Your task to perform on an android device: allow notifications from all sites in the chrome app Image 0: 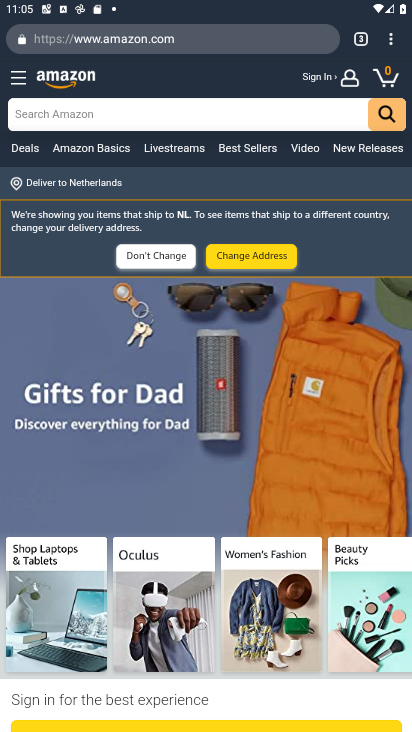
Step 0: click (394, 35)
Your task to perform on an android device: allow notifications from all sites in the chrome app Image 1: 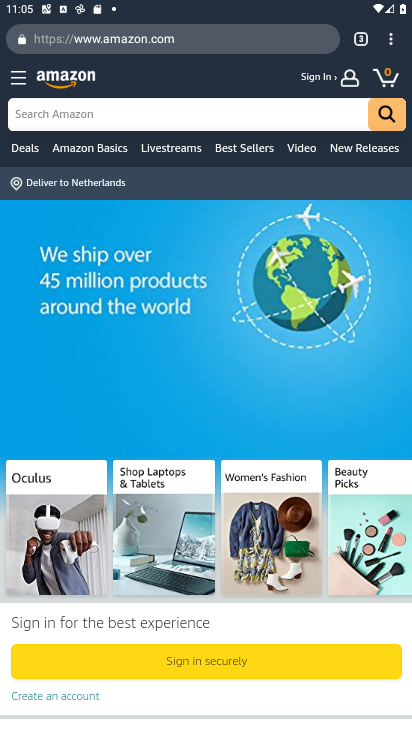
Step 1: click (385, 38)
Your task to perform on an android device: allow notifications from all sites in the chrome app Image 2: 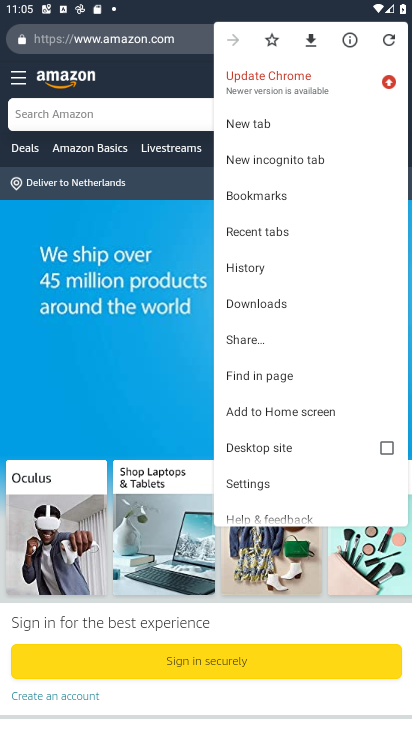
Step 2: click (288, 486)
Your task to perform on an android device: allow notifications from all sites in the chrome app Image 3: 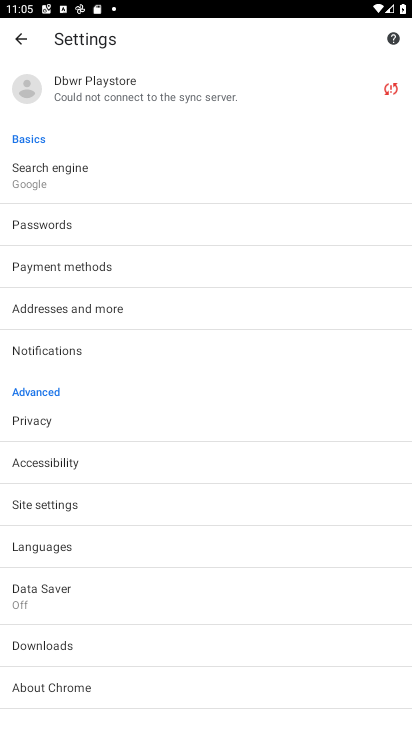
Step 3: click (145, 357)
Your task to perform on an android device: allow notifications from all sites in the chrome app Image 4: 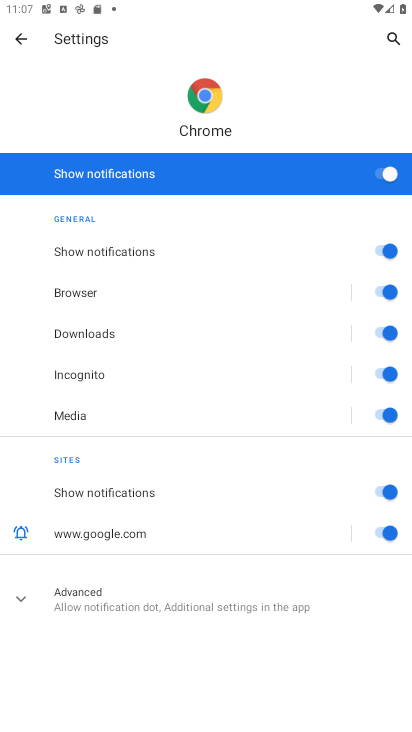
Step 4: task complete